Your task to perform on an android device: check data usage Image 0: 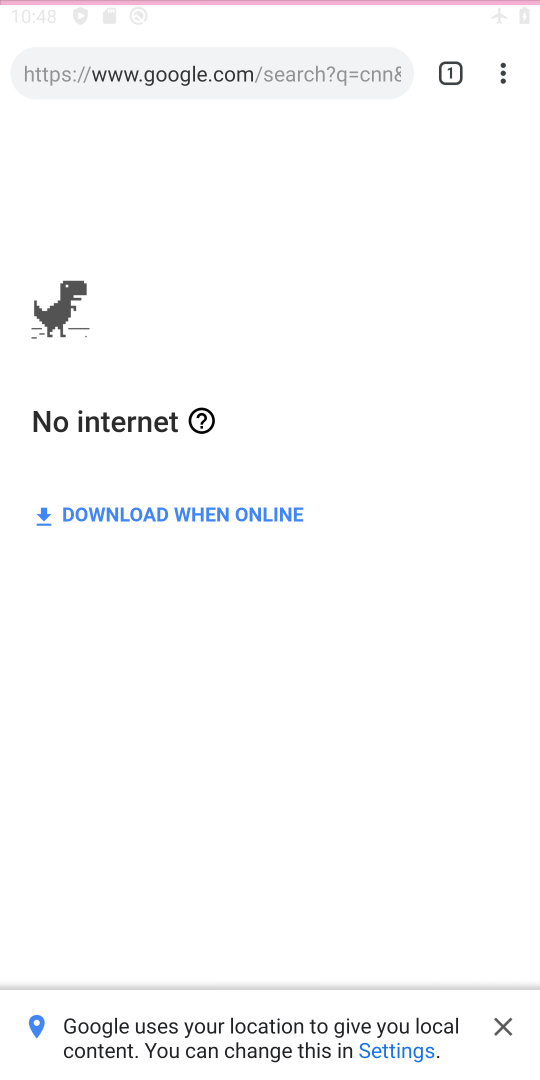
Step 0: drag from (304, 12) to (524, 5)
Your task to perform on an android device: check data usage Image 1: 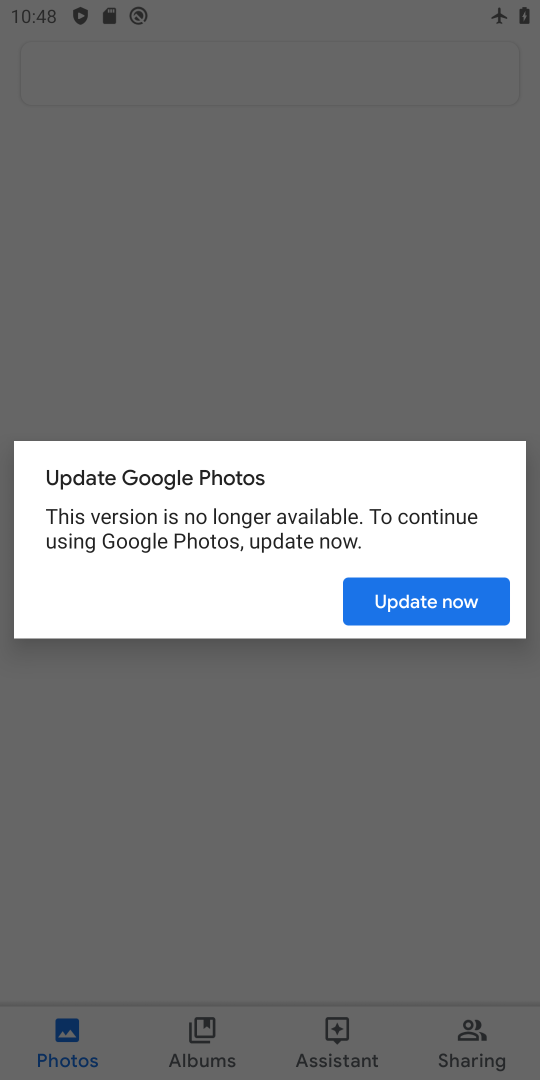
Step 1: press home button
Your task to perform on an android device: check data usage Image 2: 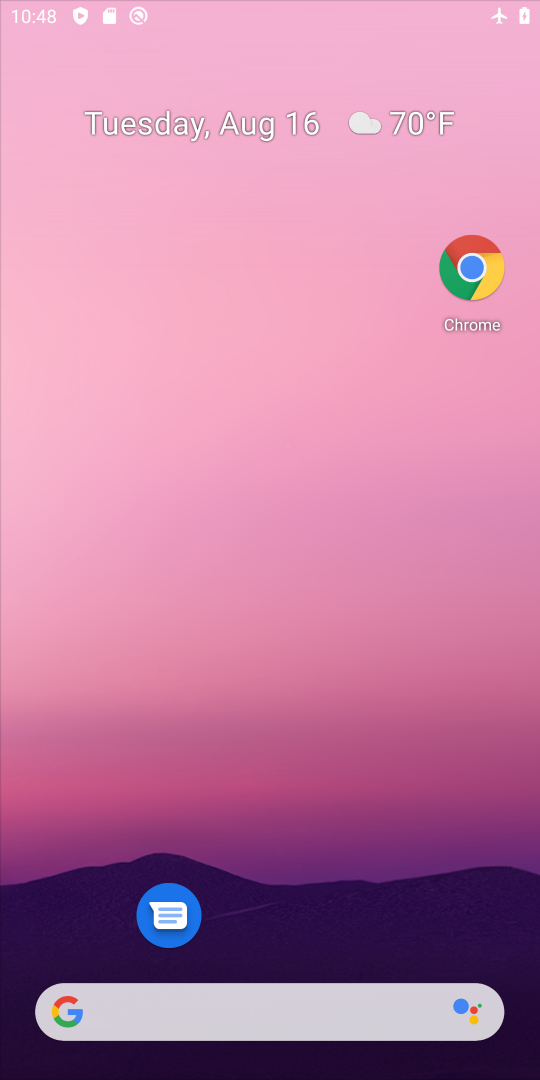
Step 2: press back button
Your task to perform on an android device: check data usage Image 3: 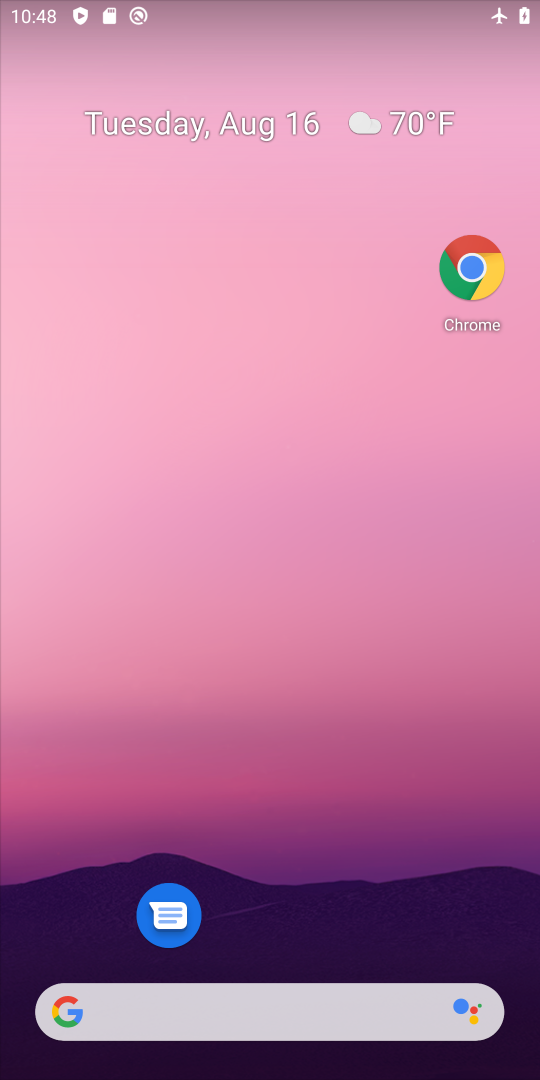
Step 3: drag from (287, 970) to (180, 137)
Your task to perform on an android device: check data usage Image 4: 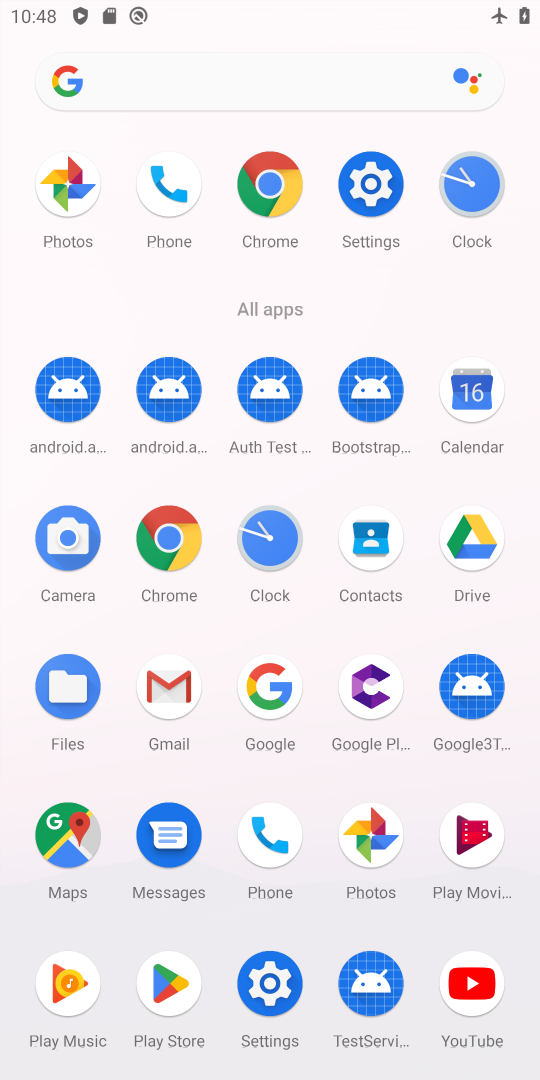
Step 4: click (280, 976)
Your task to perform on an android device: check data usage Image 5: 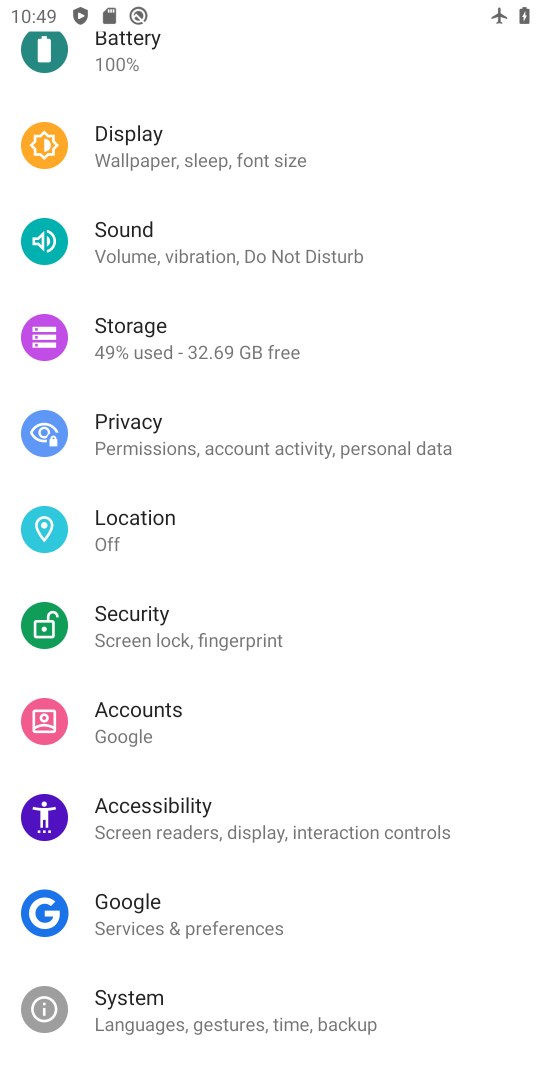
Step 5: drag from (274, 135) to (270, 758)
Your task to perform on an android device: check data usage Image 6: 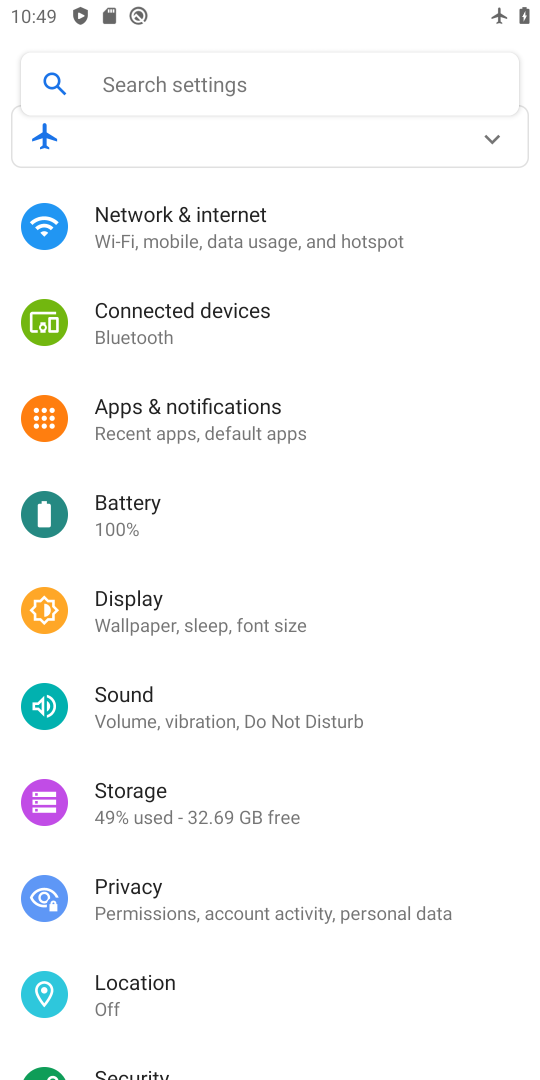
Step 6: click (240, 233)
Your task to perform on an android device: check data usage Image 7: 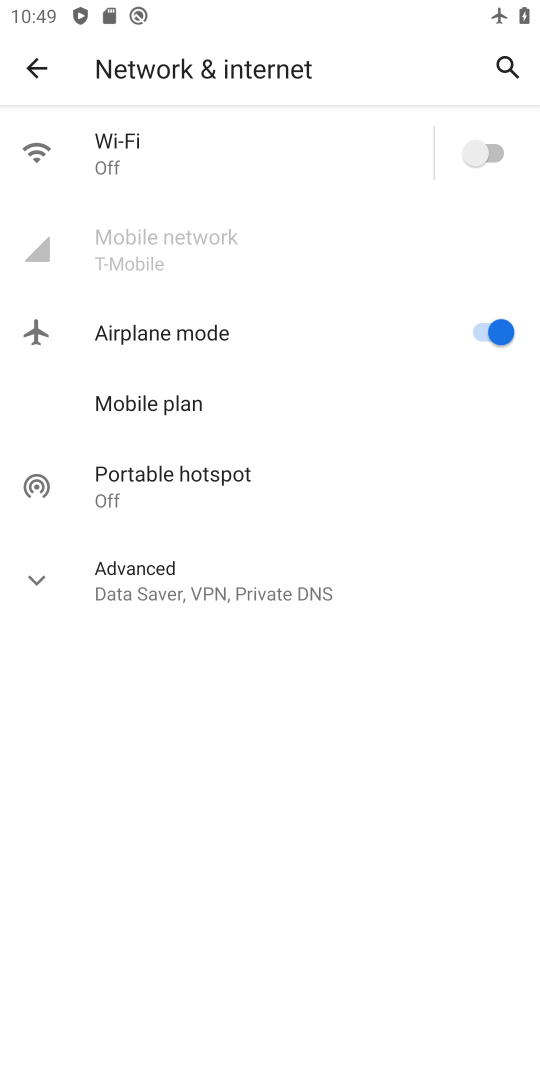
Step 7: click (240, 233)
Your task to perform on an android device: check data usage Image 8: 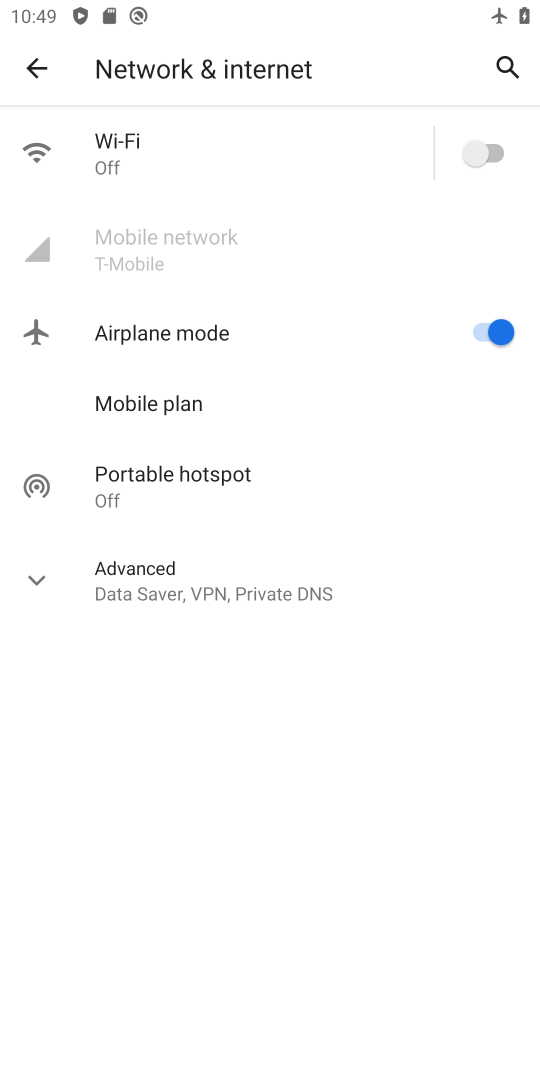
Step 8: click (240, 233)
Your task to perform on an android device: check data usage Image 9: 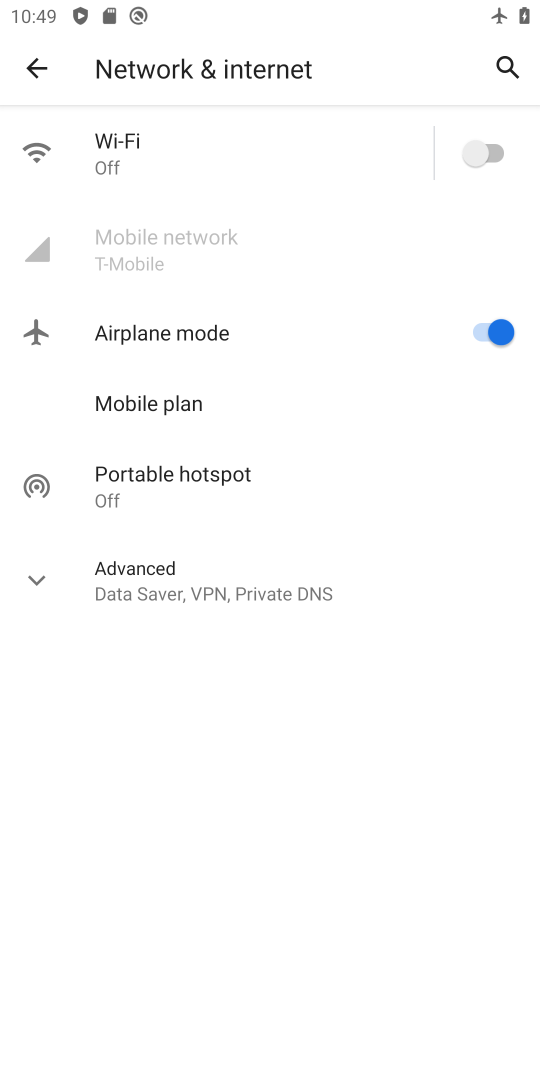
Step 9: task complete